Your task to perform on an android device: When is my next appointment? Image 0: 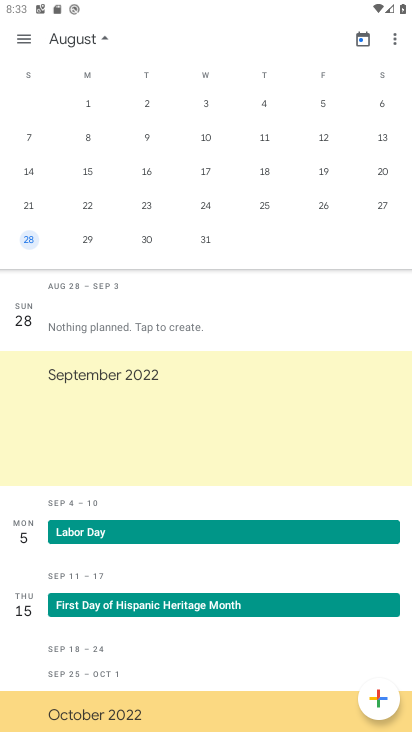
Step 0: press home button
Your task to perform on an android device: When is my next appointment? Image 1: 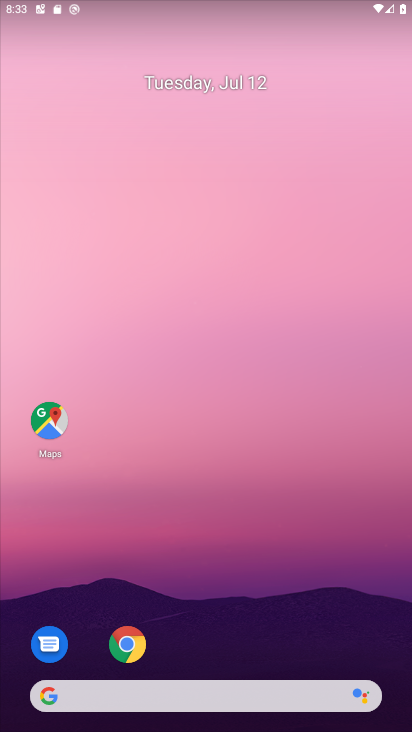
Step 1: drag from (358, 674) to (244, 174)
Your task to perform on an android device: When is my next appointment? Image 2: 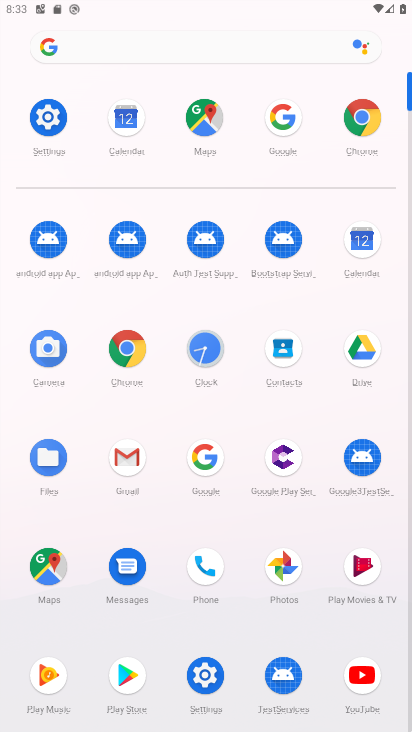
Step 2: click (346, 253)
Your task to perform on an android device: When is my next appointment? Image 3: 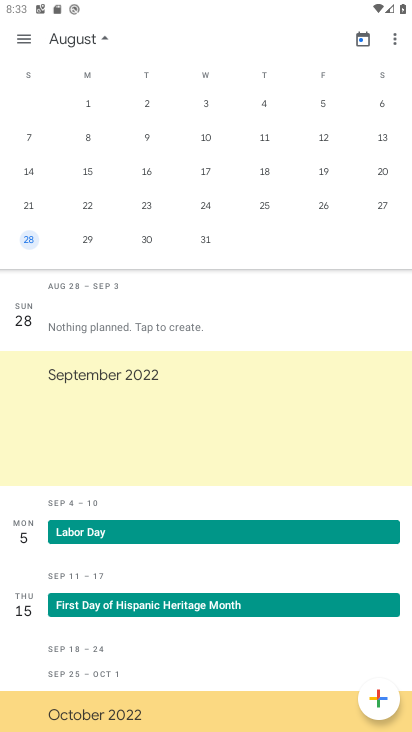
Step 3: task complete